Your task to perform on an android device: Find coffee shops on Maps Image 0: 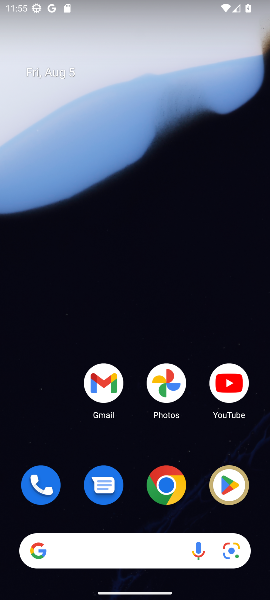
Step 0: drag from (142, 453) to (122, 80)
Your task to perform on an android device: Find coffee shops on Maps Image 1: 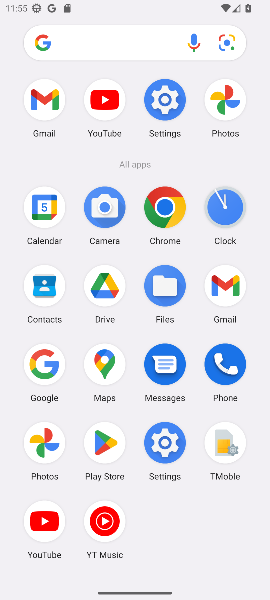
Step 1: click (102, 350)
Your task to perform on an android device: Find coffee shops on Maps Image 2: 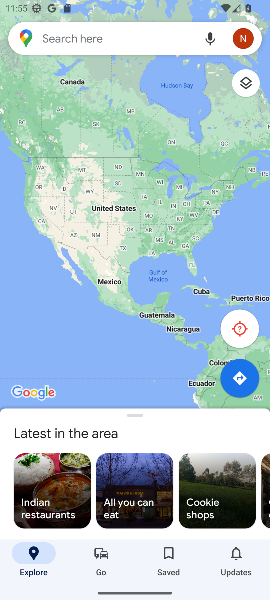
Step 2: click (91, 33)
Your task to perform on an android device: Find coffee shops on Maps Image 3: 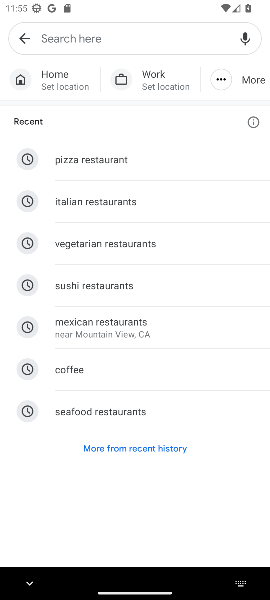
Step 3: click (75, 365)
Your task to perform on an android device: Find coffee shops on Maps Image 4: 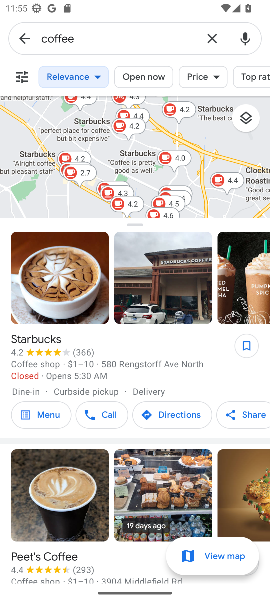
Step 4: task complete